Your task to perform on an android device: see tabs open on other devices in the chrome app Image 0: 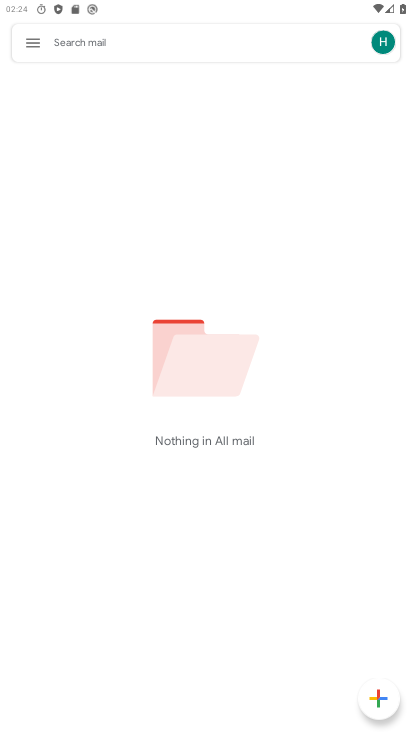
Step 0: press back button
Your task to perform on an android device: see tabs open on other devices in the chrome app Image 1: 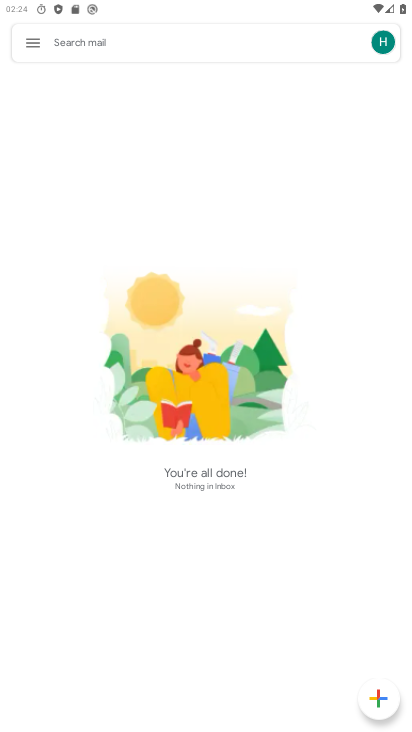
Step 1: press back button
Your task to perform on an android device: see tabs open on other devices in the chrome app Image 2: 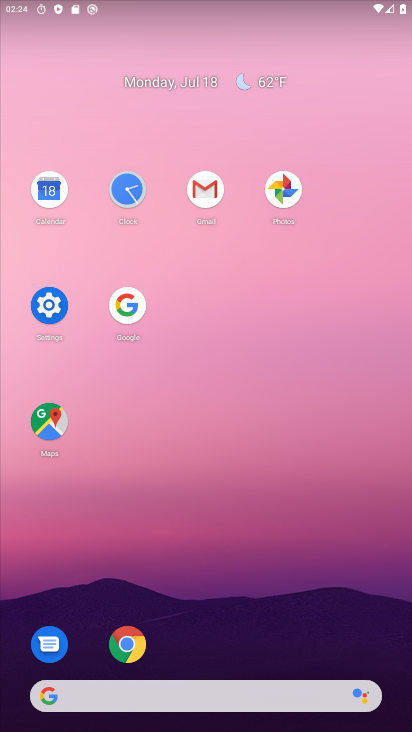
Step 2: click (119, 641)
Your task to perform on an android device: see tabs open on other devices in the chrome app Image 3: 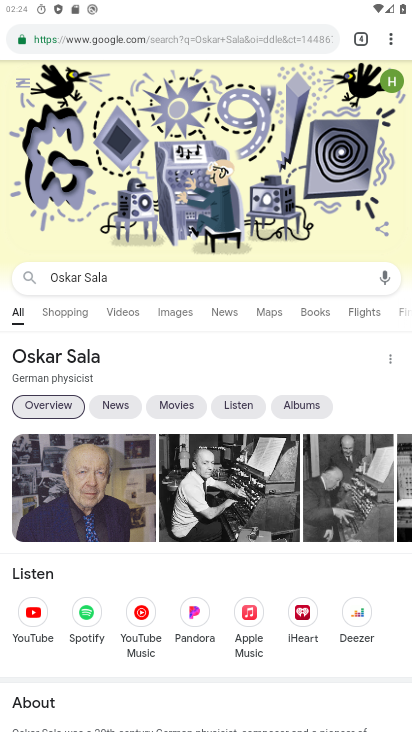
Step 3: click (387, 37)
Your task to perform on an android device: see tabs open on other devices in the chrome app Image 4: 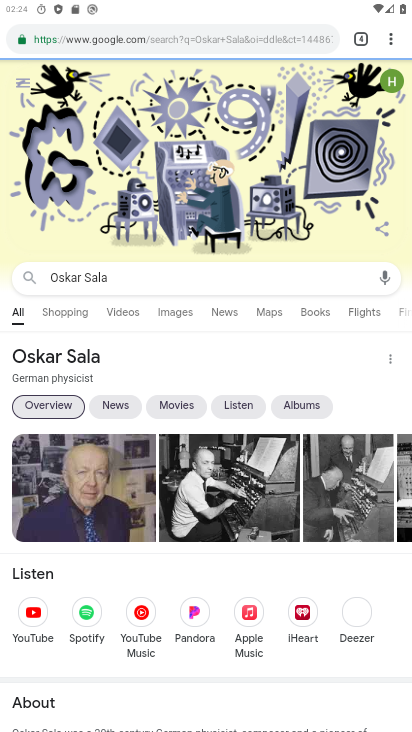
Step 4: click (393, 30)
Your task to perform on an android device: see tabs open on other devices in the chrome app Image 5: 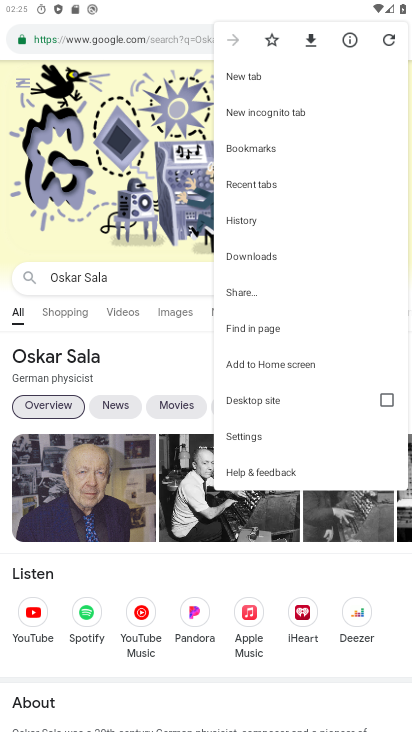
Step 5: click (299, 179)
Your task to perform on an android device: see tabs open on other devices in the chrome app Image 6: 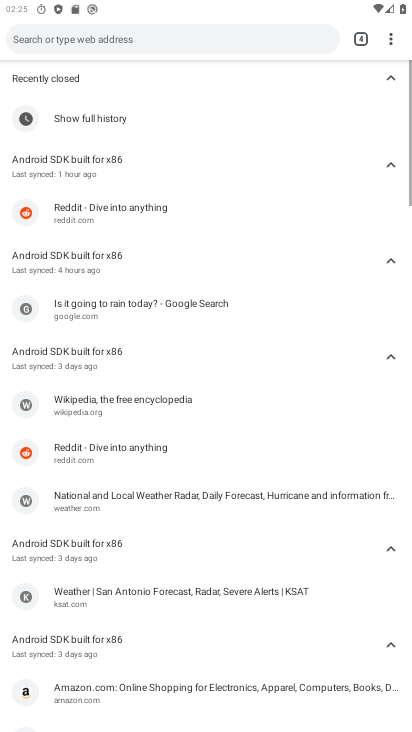
Step 6: task complete